Your task to perform on an android device: Go to settings Image 0: 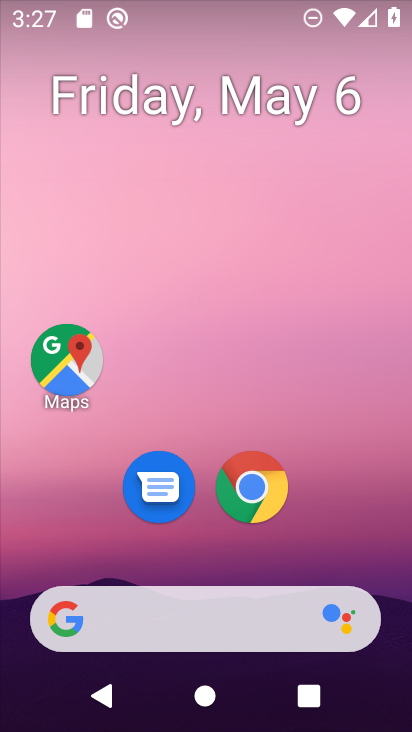
Step 0: drag from (326, 536) to (306, 51)
Your task to perform on an android device: Go to settings Image 1: 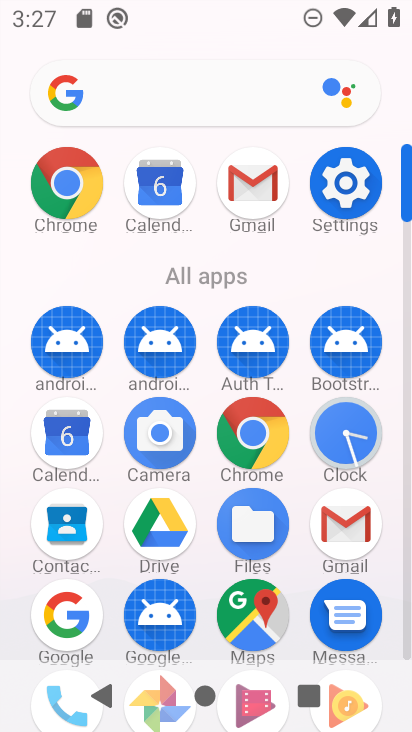
Step 1: click (351, 191)
Your task to perform on an android device: Go to settings Image 2: 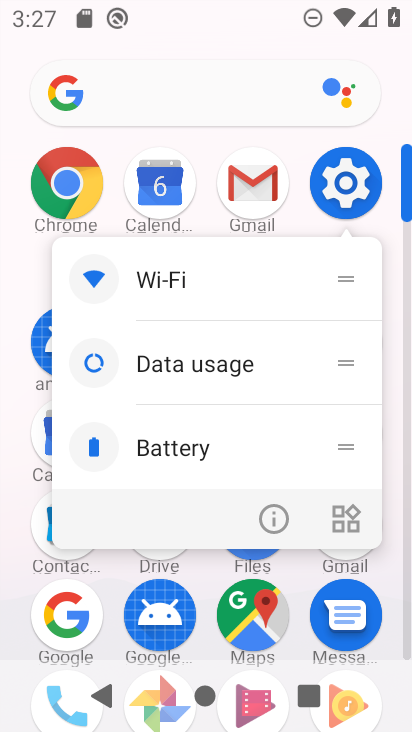
Step 2: click (351, 191)
Your task to perform on an android device: Go to settings Image 3: 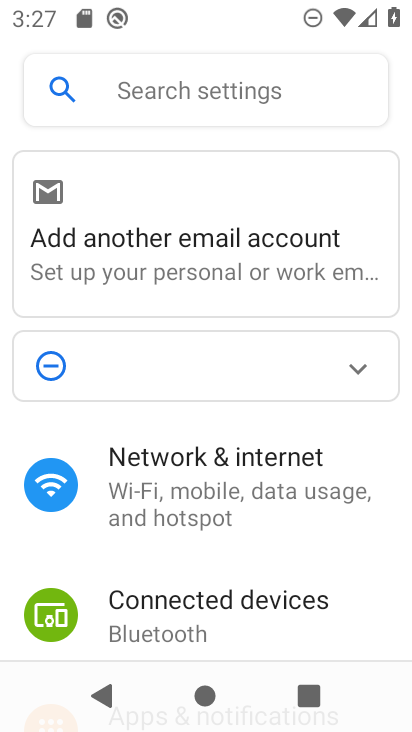
Step 3: task complete